Your task to perform on an android device: Search for a 3d printer on aliexpress Image 0: 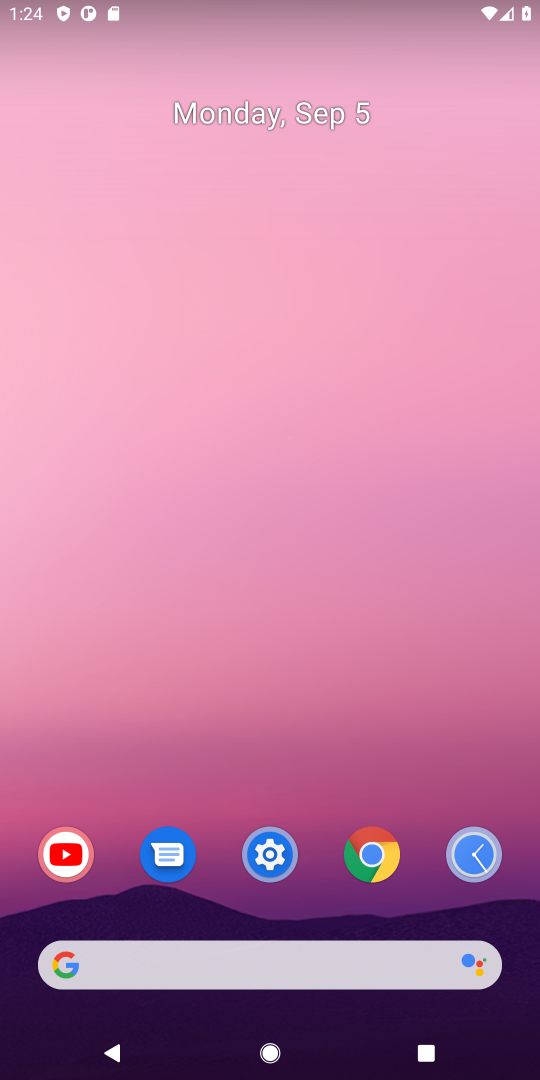
Step 0: click (331, 969)
Your task to perform on an android device: Search for a 3d printer on aliexpress Image 1: 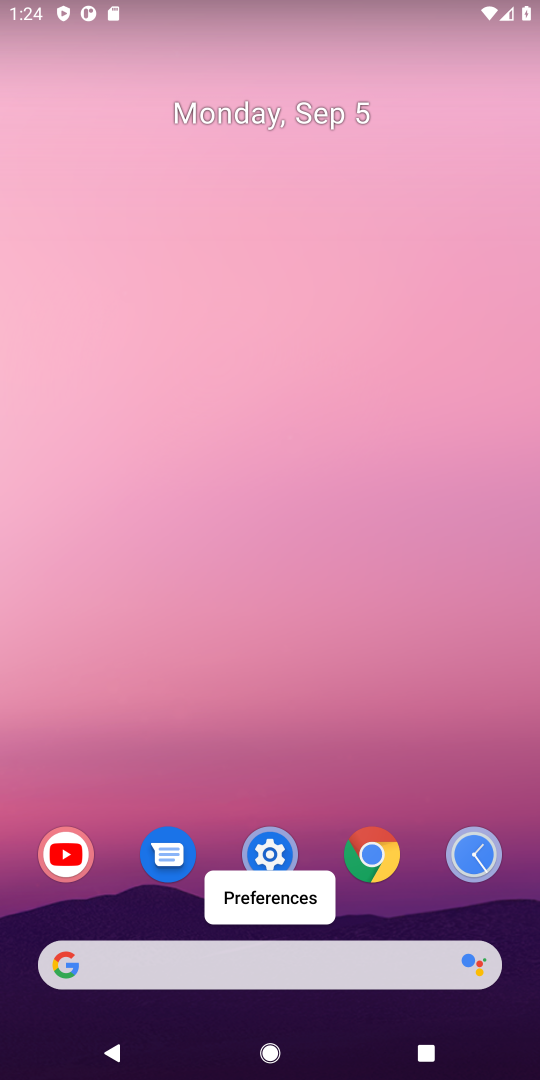
Step 1: click (265, 972)
Your task to perform on an android device: Search for a 3d printer on aliexpress Image 2: 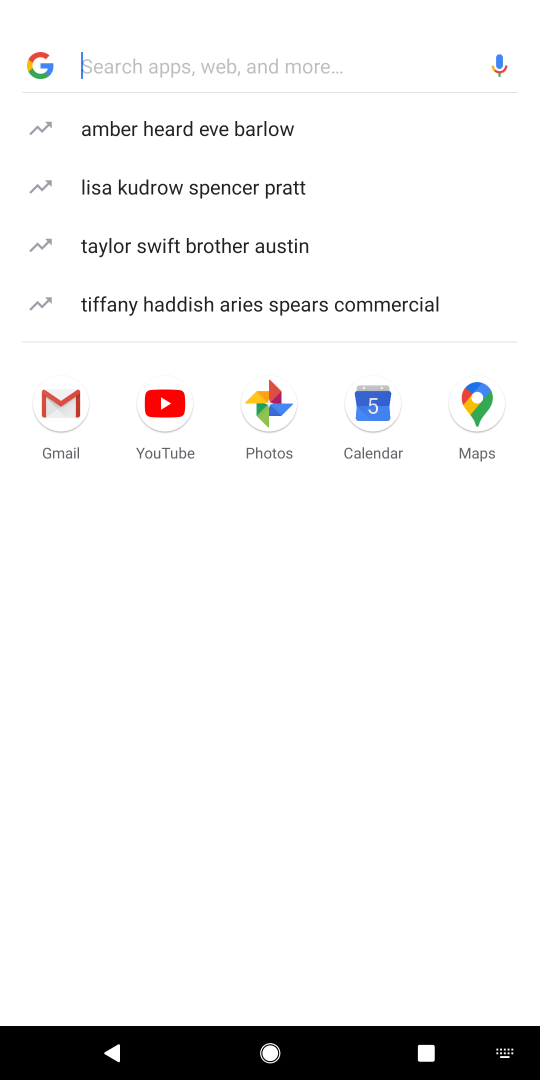
Step 2: type "aliexpress"
Your task to perform on an android device: Search for a 3d printer on aliexpress Image 3: 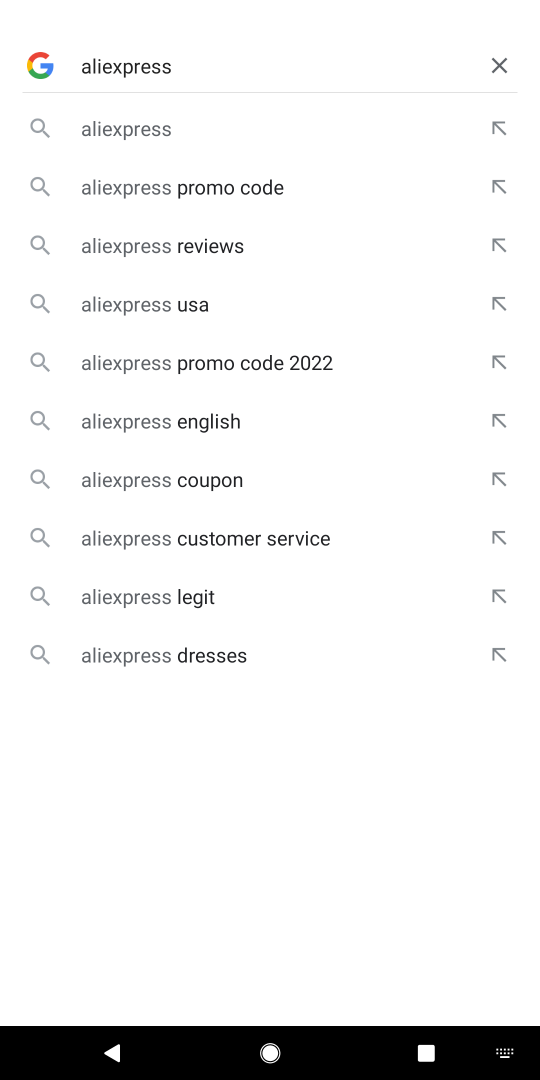
Step 3: click (113, 135)
Your task to perform on an android device: Search for a 3d printer on aliexpress Image 4: 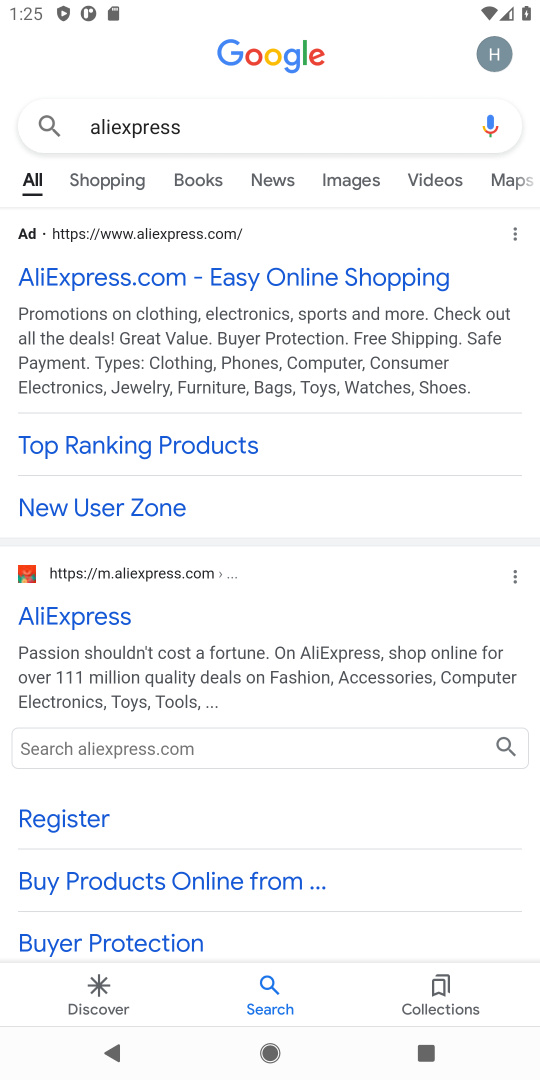
Step 4: click (89, 592)
Your task to perform on an android device: Search for a 3d printer on aliexpress Image 5: 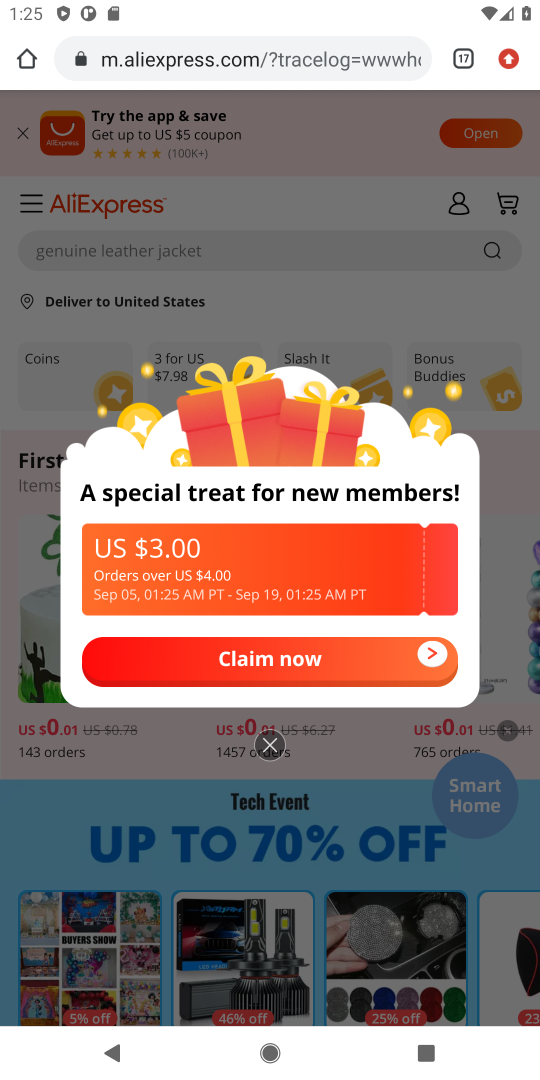
Step 5: click (267, 728)
Your task to perform on an android device: Search for a 3d printer on aliexpress Image 6: 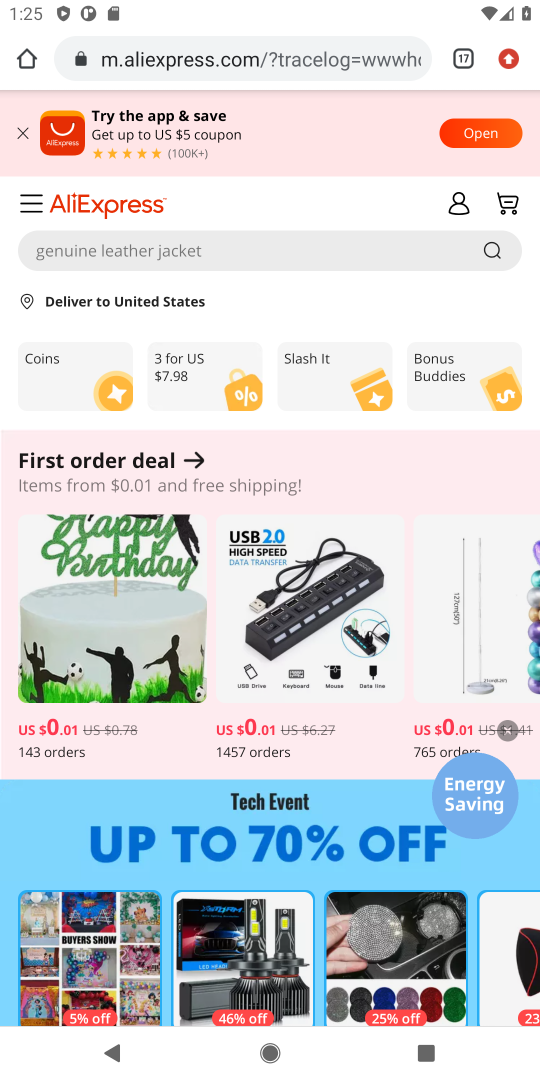
Step 6: click (196, 239)
Your task to perform on an android device: Search for a 3d printer on aliexpress Image 7: 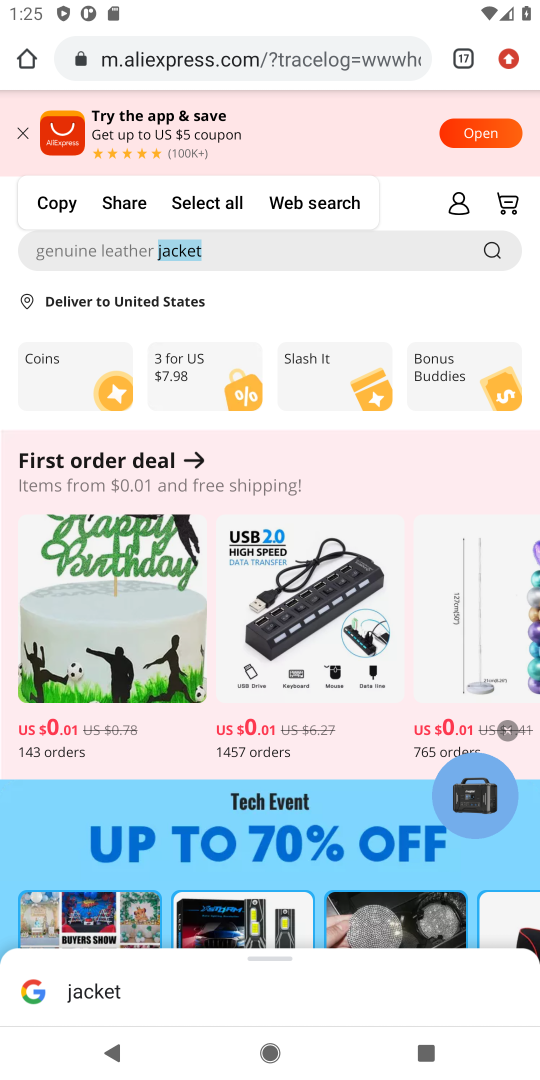
Step 7: click (198, 248)
Your task to perform on an android device: Search for a 3d printer on aliexpress Image 8: 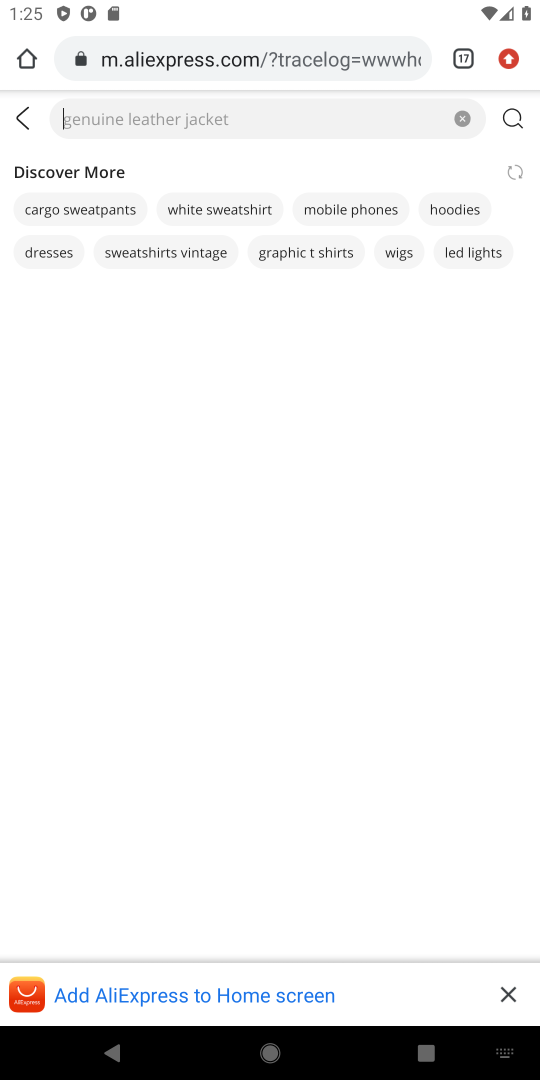
Step 8: type "3d printer"
Your task to perform on an android device: Search for a 3d printer on aliexpress Image 9: 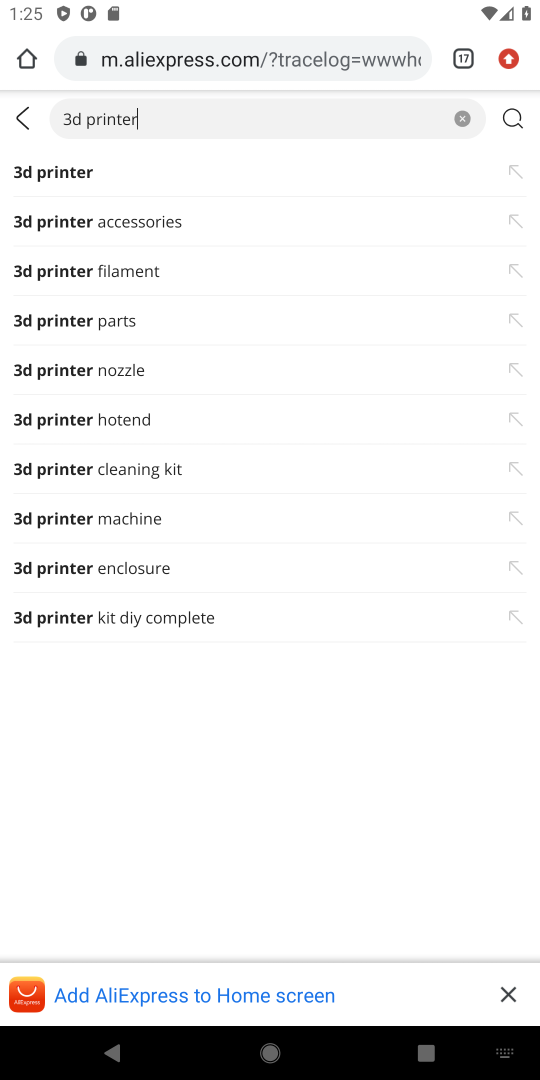
Step 9: click (129, 167)
Your task to perform on an android device: Search for a 3d printer on aliexpress Image 10: 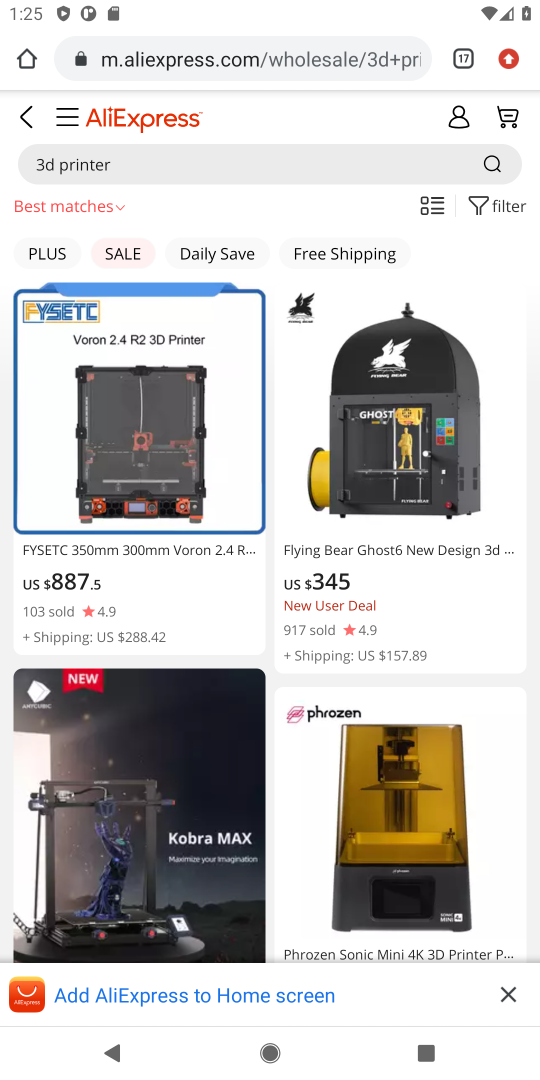
Step 10: task complete